Your task to perform on an android device: change notification settings in the gmail app Image 0: 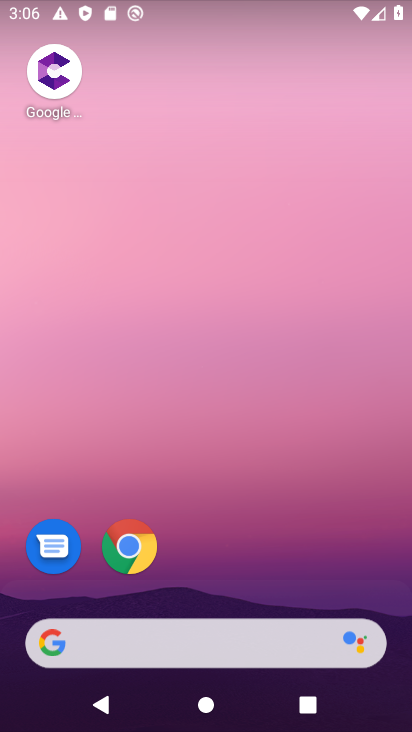
Step 0: drag from (221, 596) to (283, 34)
Your task to perform on an android device: change notification settings in the gmail app Image 1: 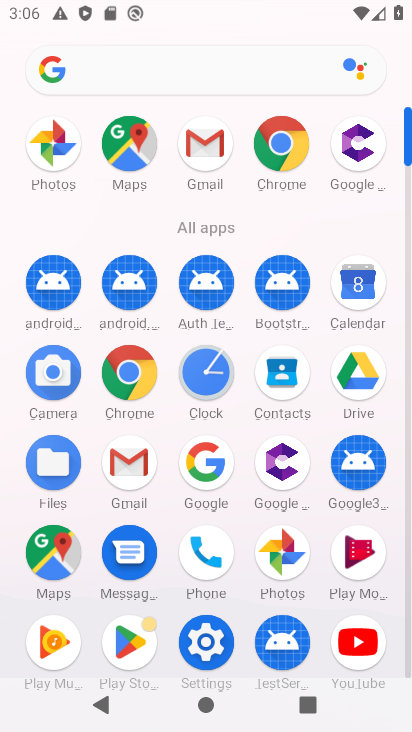
Step 1: click (202, 136)
Your task to perform on an android device: change notification settings in the gmail app Image 2: 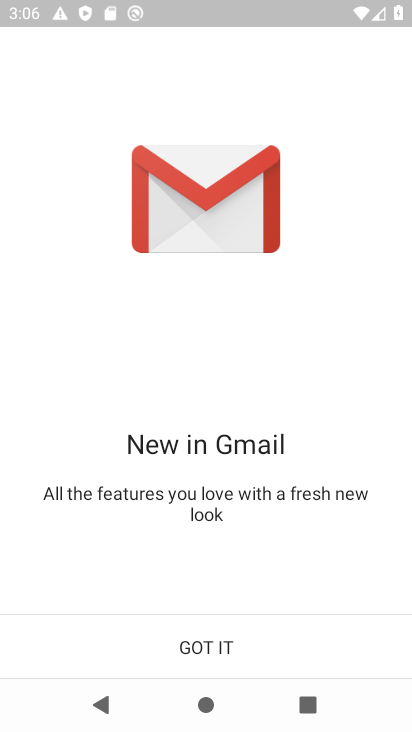
Step 2: click (179, 645)
Your task to perform on an android device: change notification settings in the gmail app Image 3: 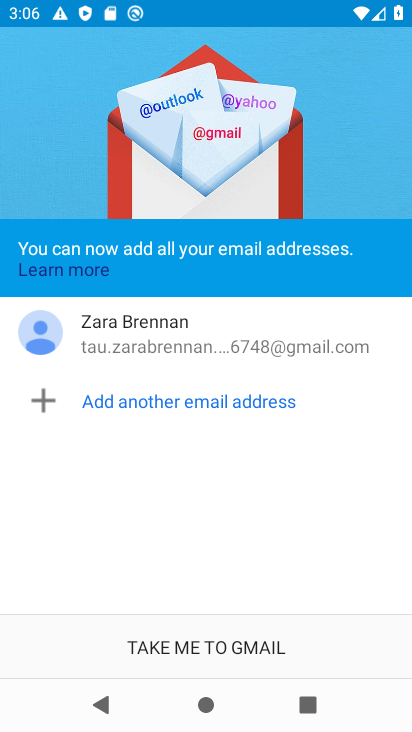
Step 3: click (179, 645)
Your task to perform on an android device: change notification settings in the gmail app Image 4: 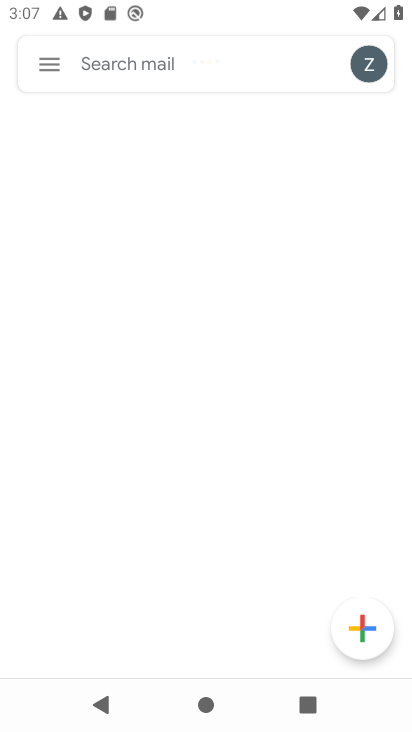
Step 4: click (56, 66)
Your task to perform on an android device: change notification settings in the gmail app Image 5: 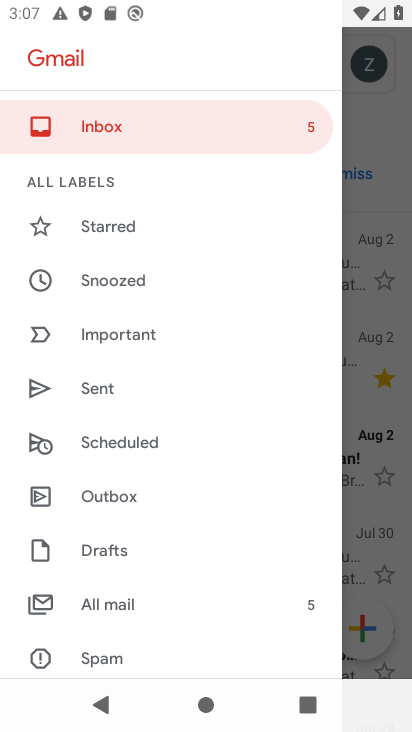
Step 5: drag from (132, 636) to (169, 185)
Your task to perform on an android device: change notification settings in the gmail app Image 6: 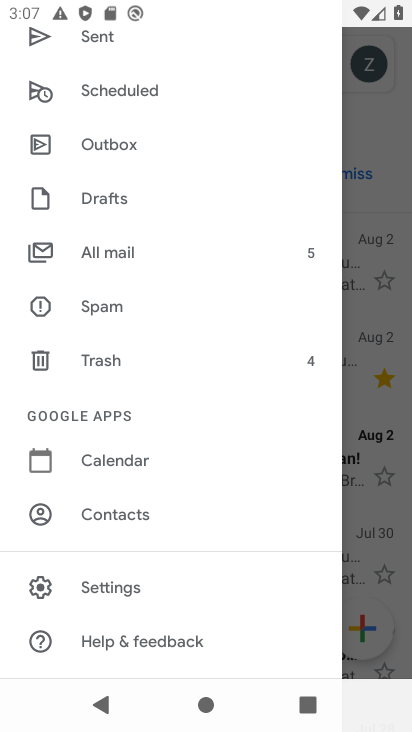
Step 6: click (139, 582)
Your task to perform on an android device: change notification settings in the gmail app Image 7: 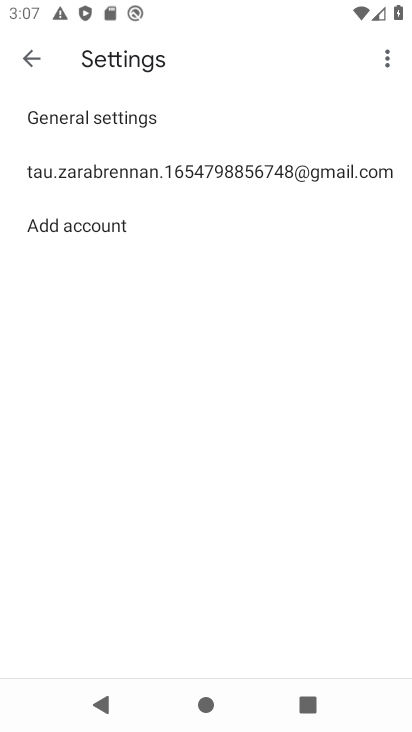
Step 7: click (229, 184)
Your task to perform on an android device: change notification settings in the gmail app Image 8: 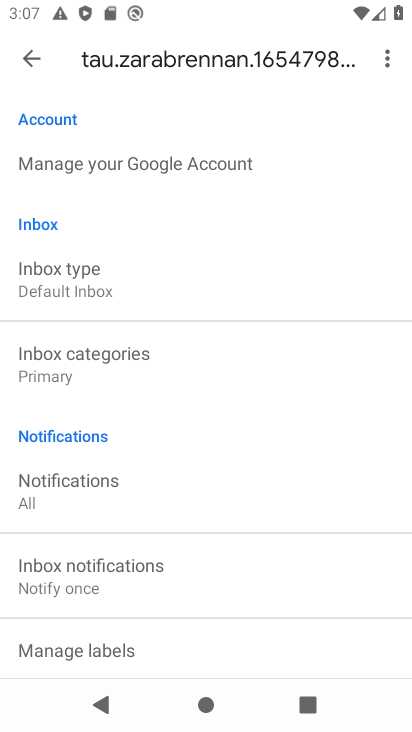
Step 8: click (113, 510)
Your task to perform on an android device: change notification settings in the gmail app Image 9: 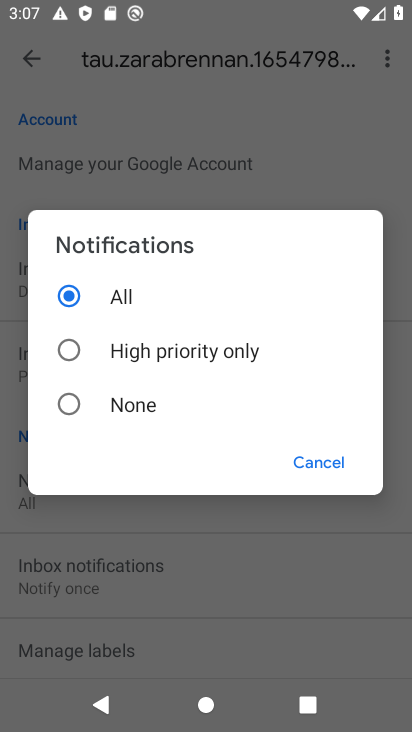
Step 9: click (129, 419)
Your task to perform on an android device: change notification settings in the gmail app Image 10: 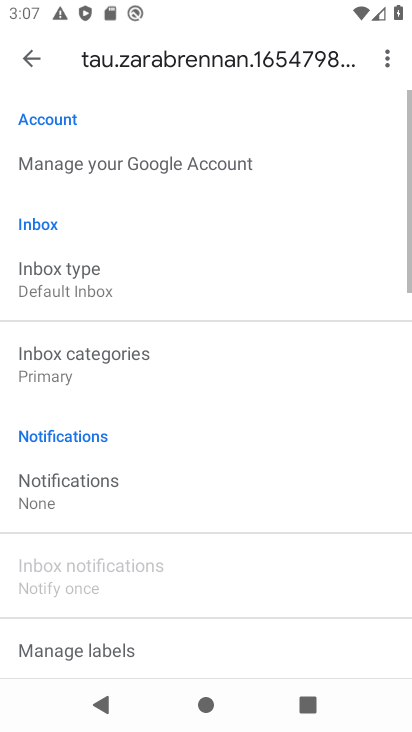
Step 10: task complete